Your task to perform on an android device: Open Google Maps and go to "Timeline" Image 0: 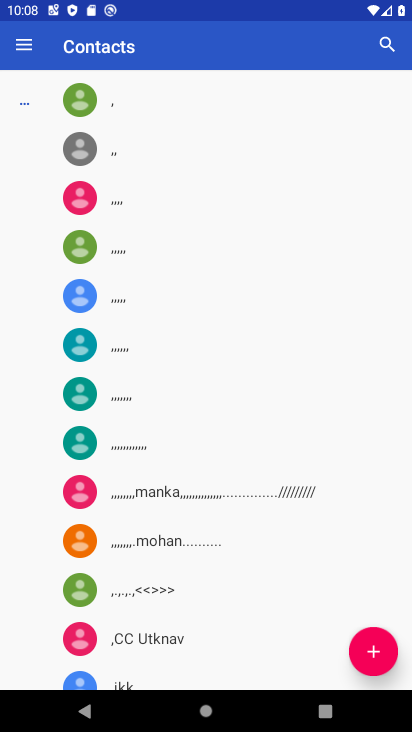
Step 0: press home button
Your task to perform on an android device: Open Google Maps and go to "Timeline" Image 1: 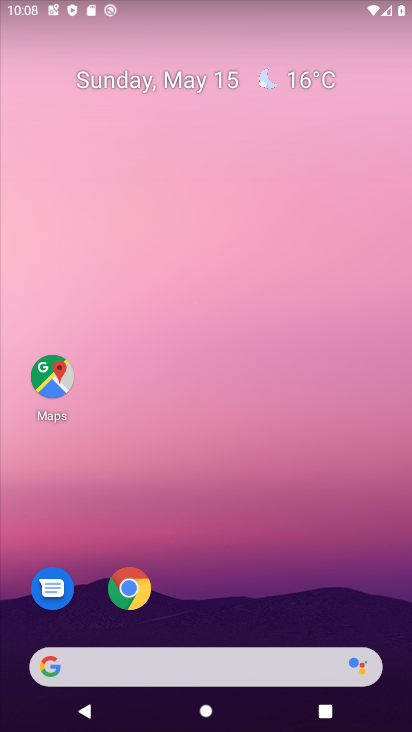
Step 1: click (44, 371)
Your task to perform on an android device: Open Google Maps and go to "Timeline" Image 2: 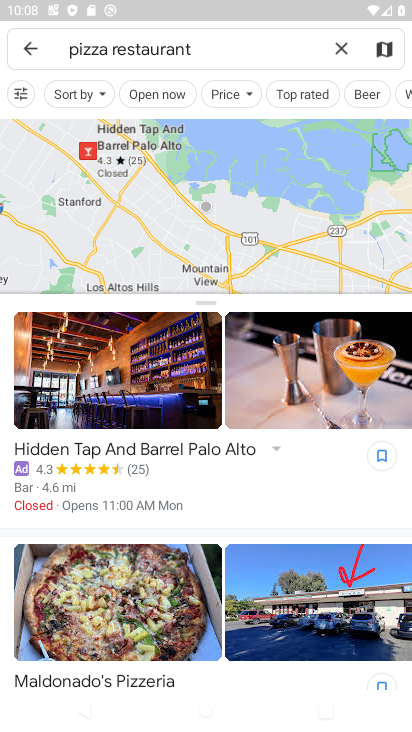
Step 2: click (22, 51)
Your task to perform on an android device: Open Google Maps and go to "Timeline" Image 3: 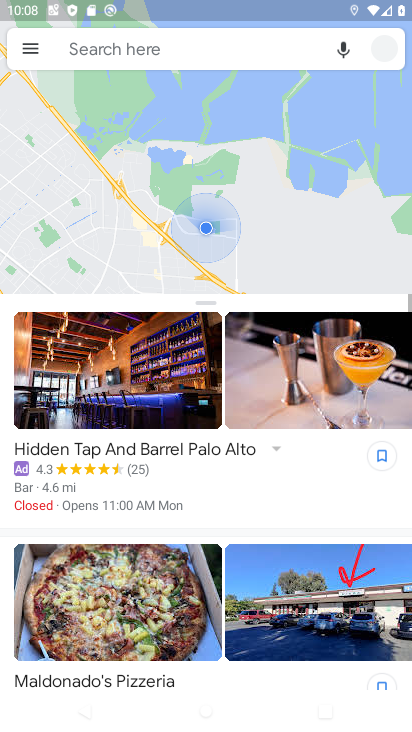
Step 3: click (29, 51)
Your task to perform on an android device: Open Google Maps and go to "Timeline" Image 4: 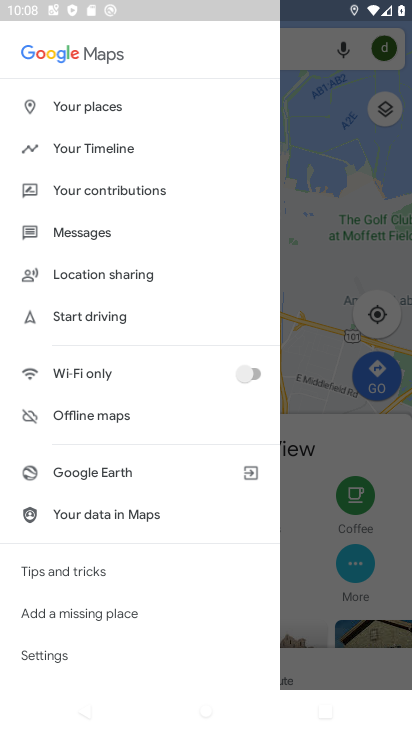
Step 4: click (111, 151)
Your task to perform on an android device: Open Google Maps and go to "Timeline" Image 5: 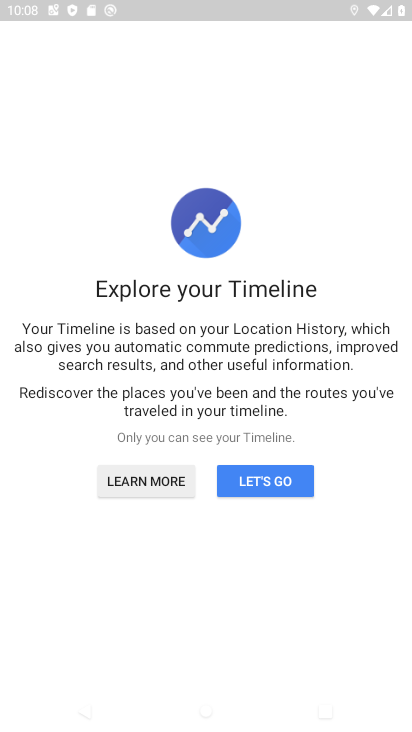
Step 5: click (249, 487)
Your task to perform on an android device: Open Google Maps and go to "Timeline" Image 6: 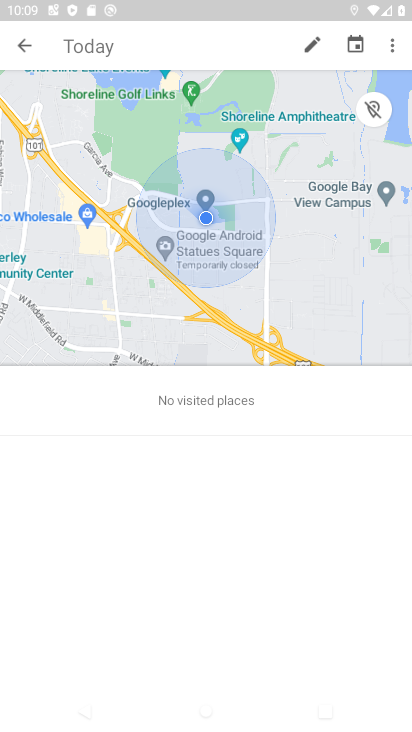
Step 6: task complete